Your task to perform on an android device: change the upload size in google photos Image 0: 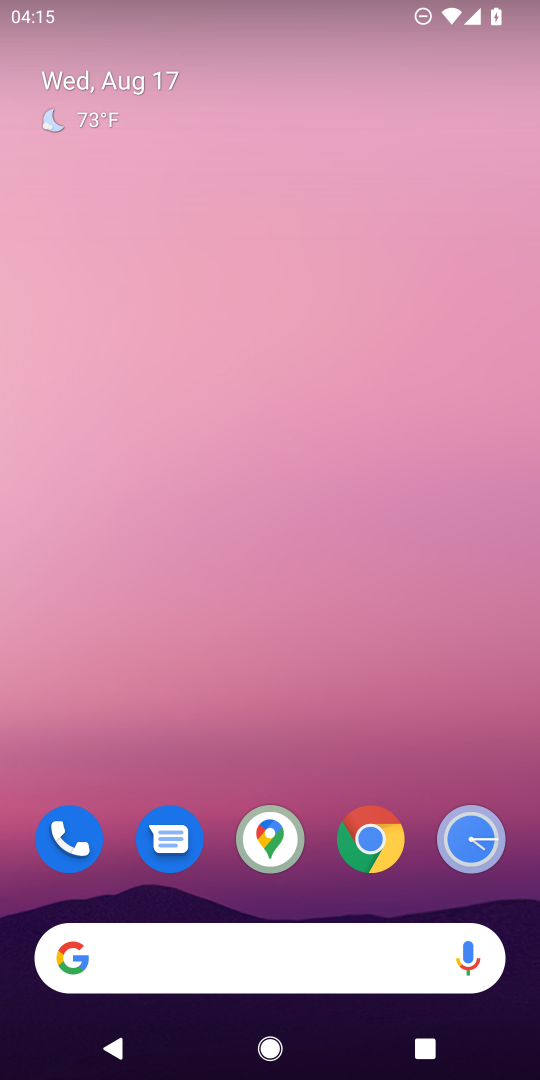
Step 0: drag from (303, 772) to (249, 190)
Your task to perform on an android device: change the upload size in google photos Image 1: 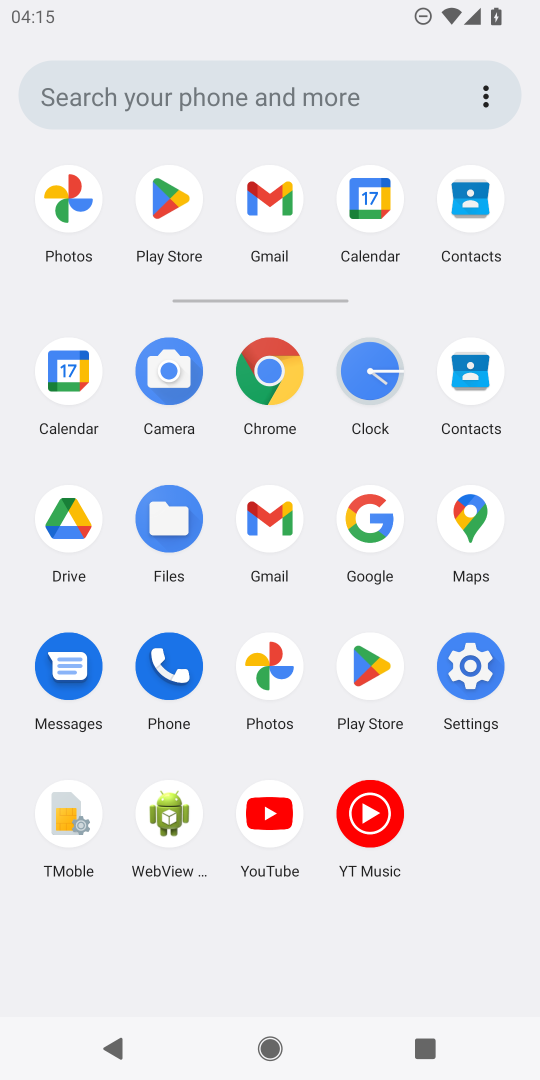
Step 1: click (268, 664)
Your task to perform on an android device: change the upload size in google photos Image 2: 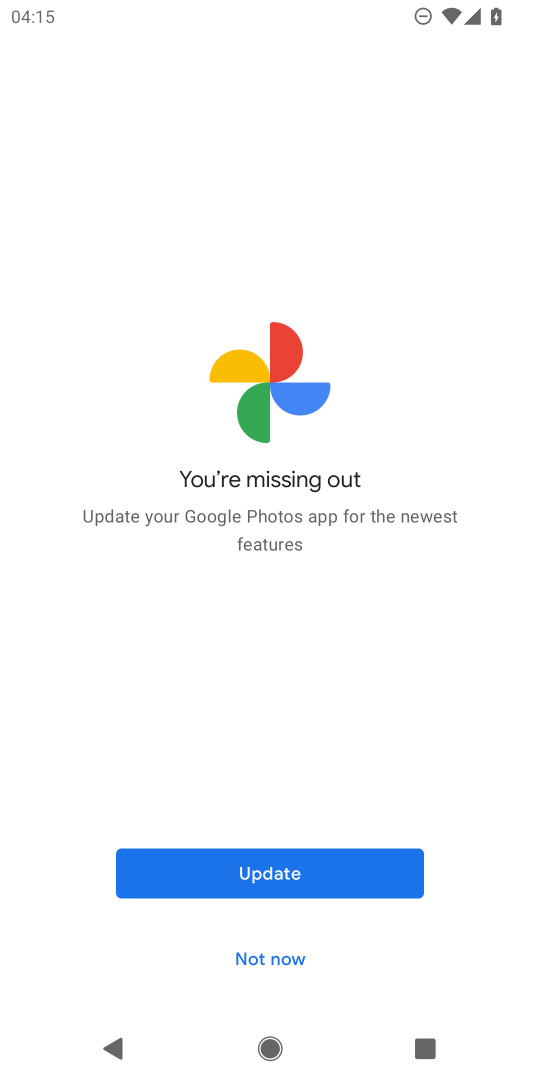
Step 2: click (277, 957)
Your task to perform on an android device: change the upload size in google photos Image 3: 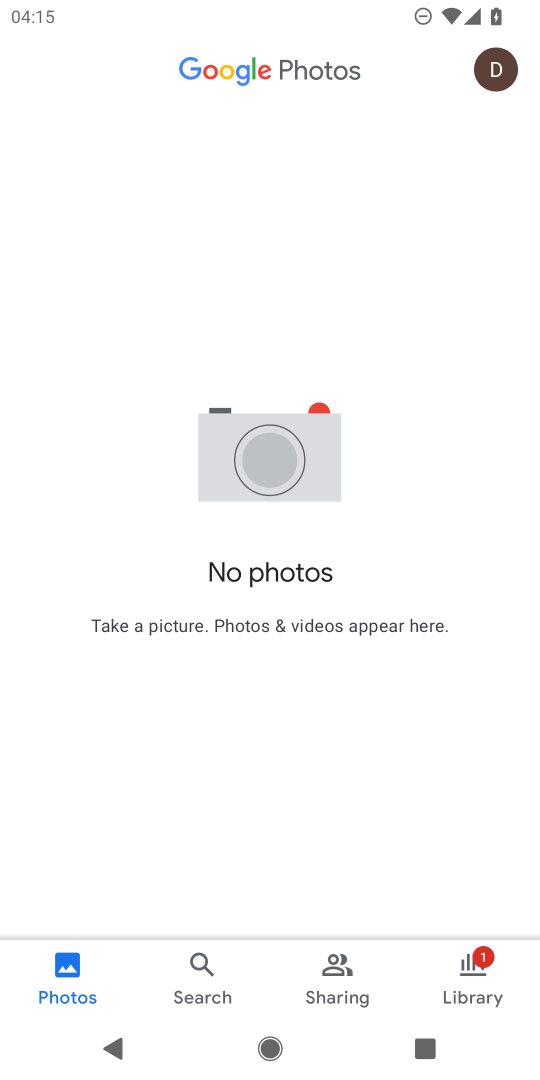
Step 3: click (494, 72)
Your task to perform on an android device: change the upload size in google photos Image 4: 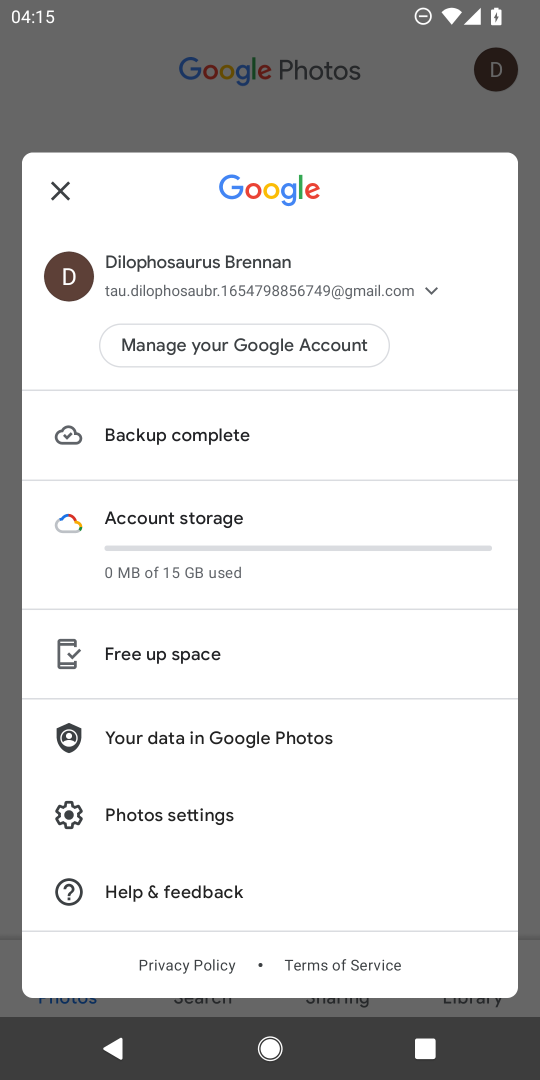
Step 4: click (184, 809)
Your task to perform on an android device: change the upload size in google photos Image 5: 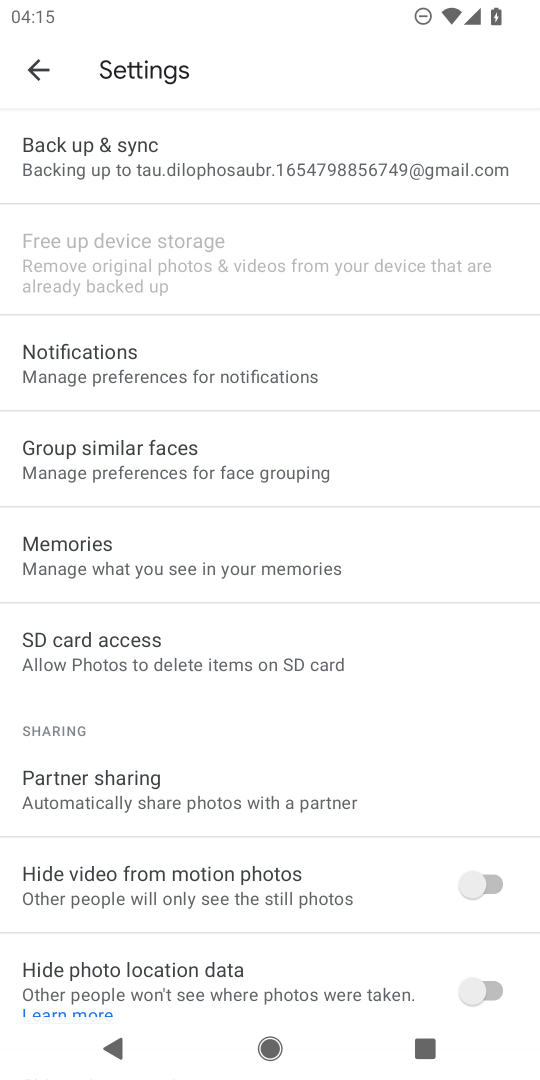
Step 5: click (124, 166)
Your task to perform on an android device: change the upload size in google photos Image 6: 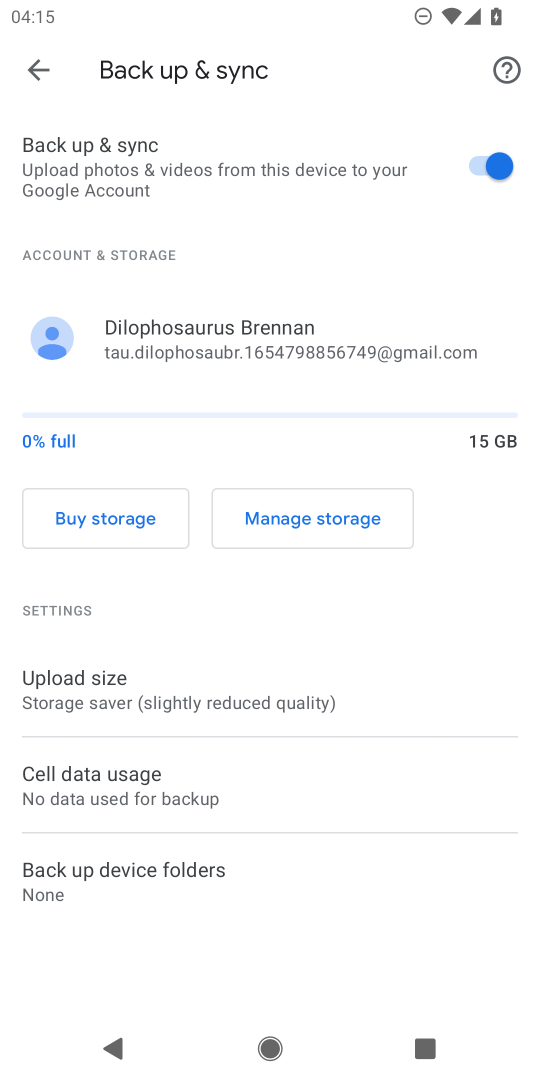
Step 6: click (96, 708)
Your task to perform on an android device: change the upload size in google photos Image 7: 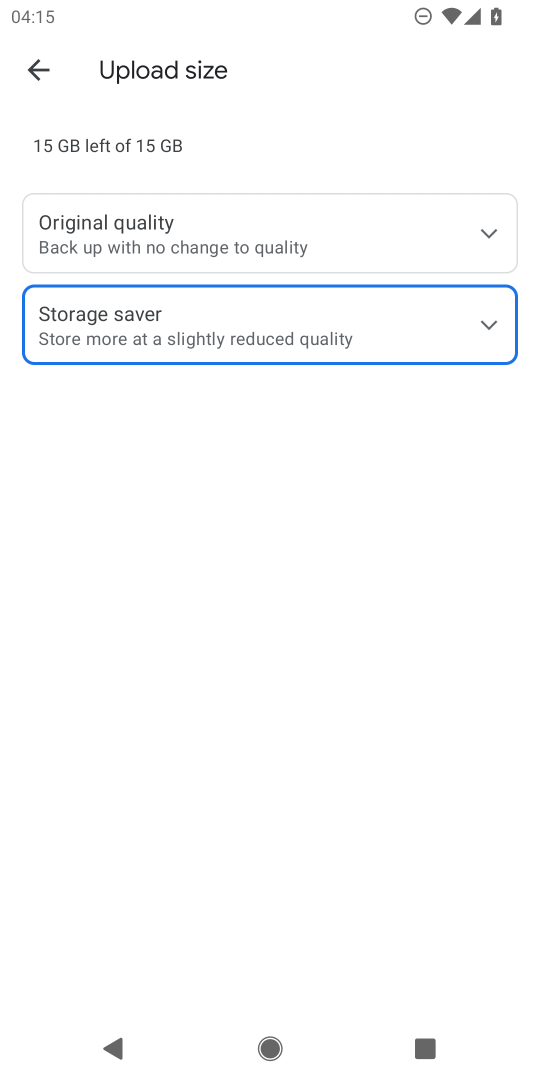
Step 7: click (487, 223)
Your task to perform on an android device: change the upload size in google photos Image 8: 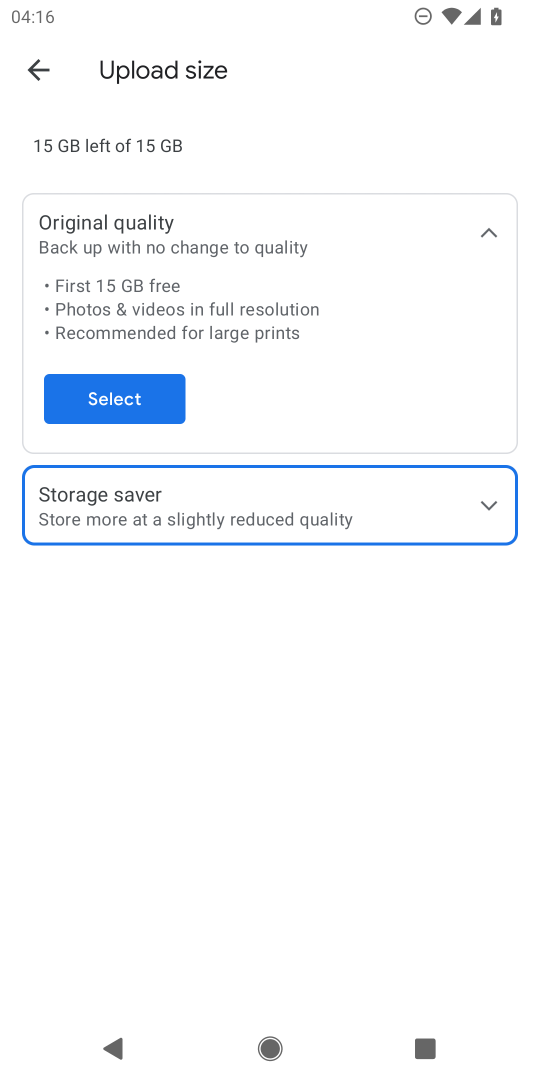
Step 8: click (142, 394)
Your task to perform on an android device: change the upload size in google photos Image 9: 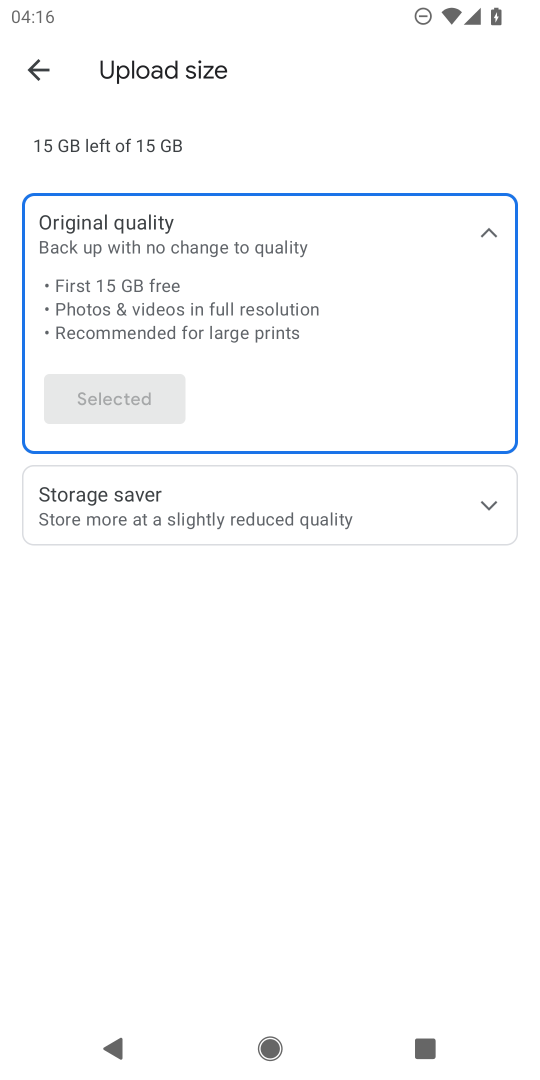
Step 9: task complete